Your task to perform on an android device: turn on javascript in the chrome app Image 0: 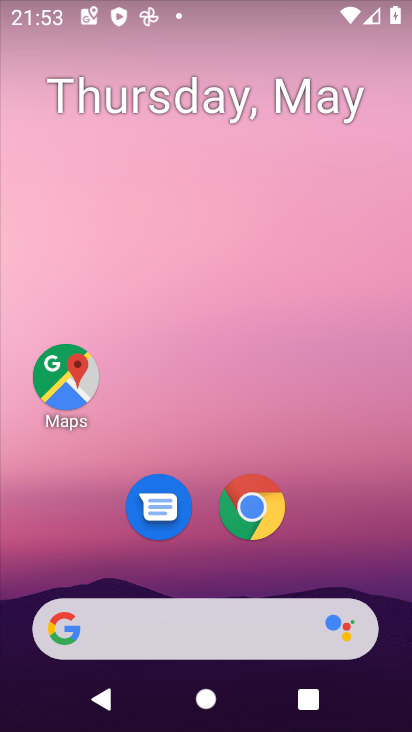
Step 0: drag from (209, 659) to (308, 254)
Your task to perform on an android device: turn on javascript in the chrome app Image 1: 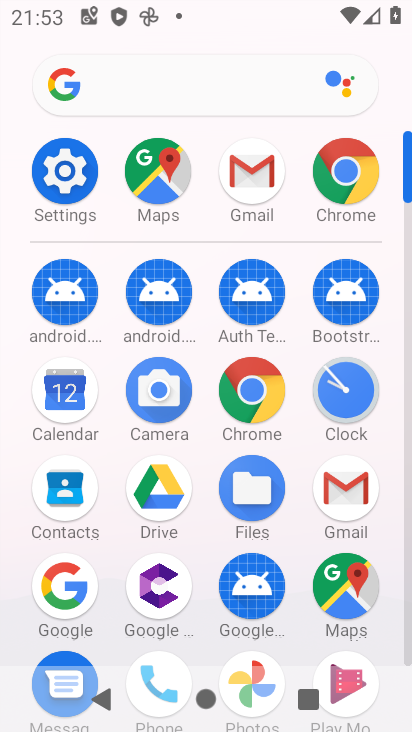
Step 1: click (324, 182)
Your task to perform on an android device: turn on javascript in the chrome app Image 2: 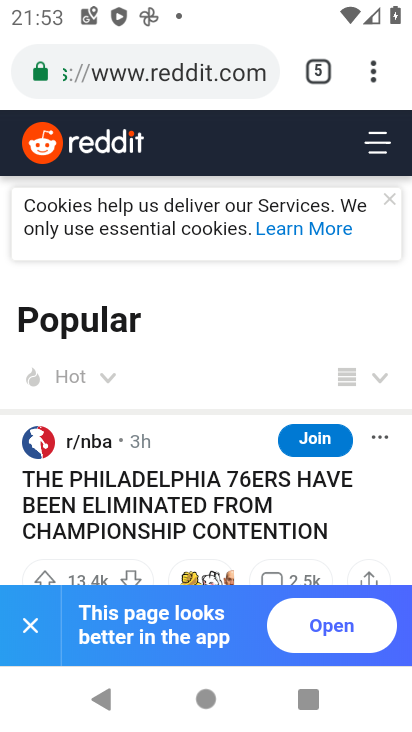
Step 2: click (369, 85)
Your task to perform on an android device: turn on javascript in the chrome app Image 3: 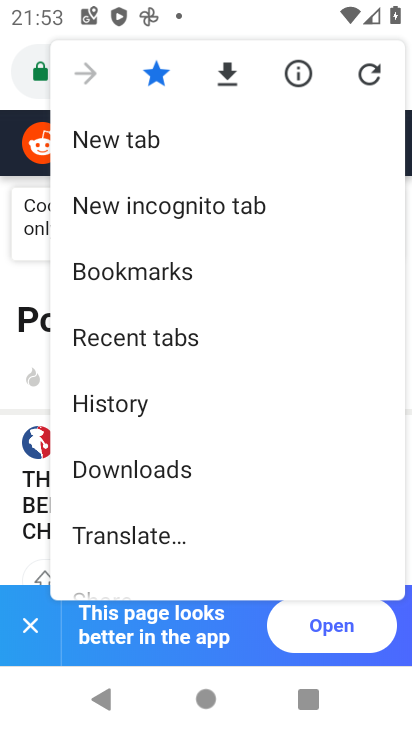
Step 3: drag from (180, 489) to (225, 282)
Your task to perform on an android device: turn on javascript in the chrome app Image 4: 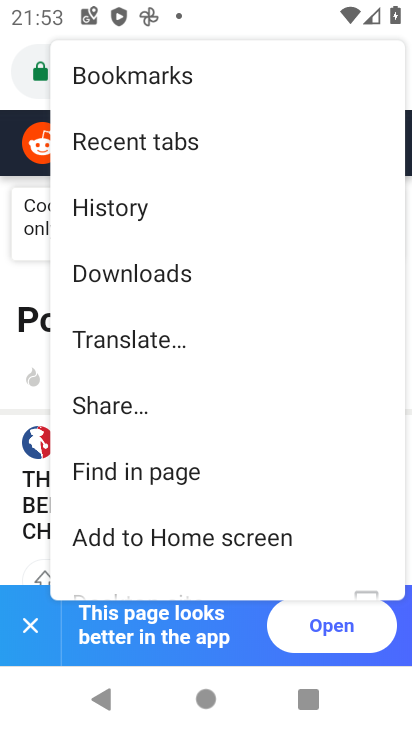
Step 4: drag from (139, 545) to (174, 474)
Your task to perform on an android device: turn on javascript in the chrome app Image 5: 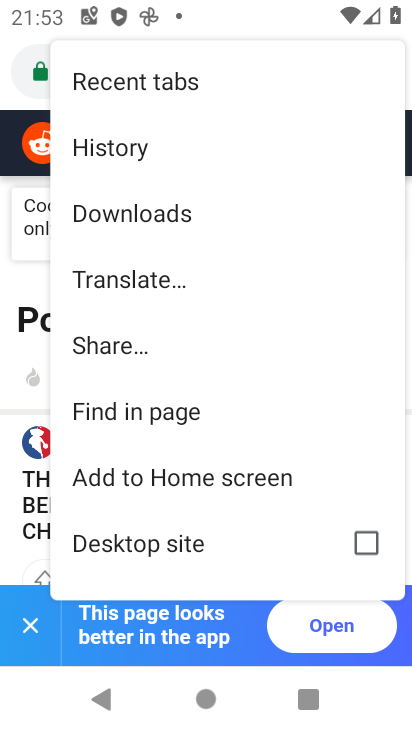
Step 5: drag from (130, 553) to (165, 461)
Your task to perform on an android device: turn on javascript in the chrome app Image 6: 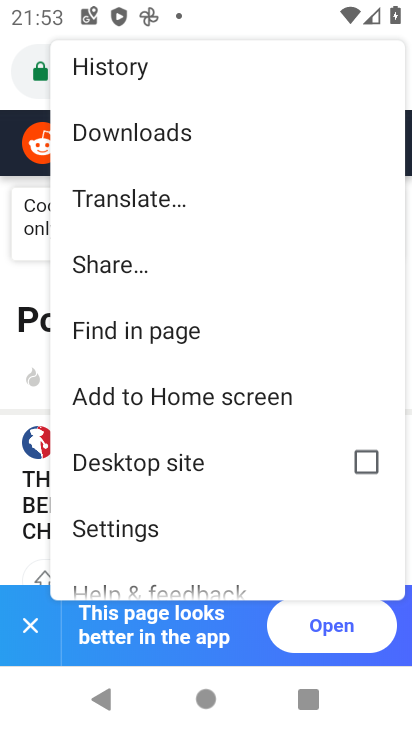
Step 6: click (116, 528)
Your task to perform on an android device: turn on javascript in the chrome app Image 7: 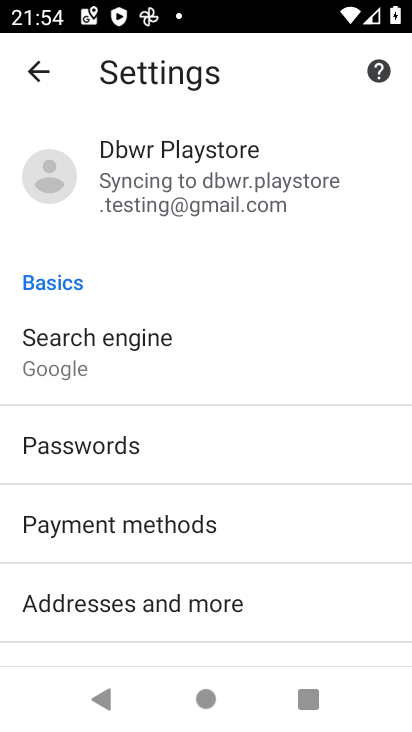
Step 7: drag from (123, 578) to (160, 339)
Your task to perform on an android device: turn on javascript in the chrome app Image 8: 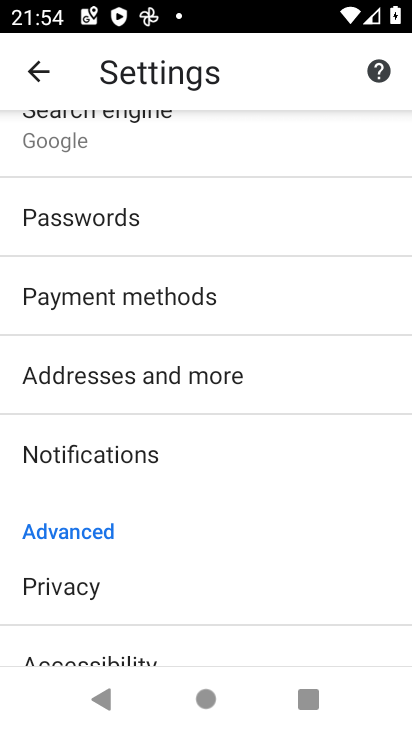
Step 8: drag from (108, 610) to (148, 454)
Your task to perform on an android device: turn on javascript in the chrome app Image 9: 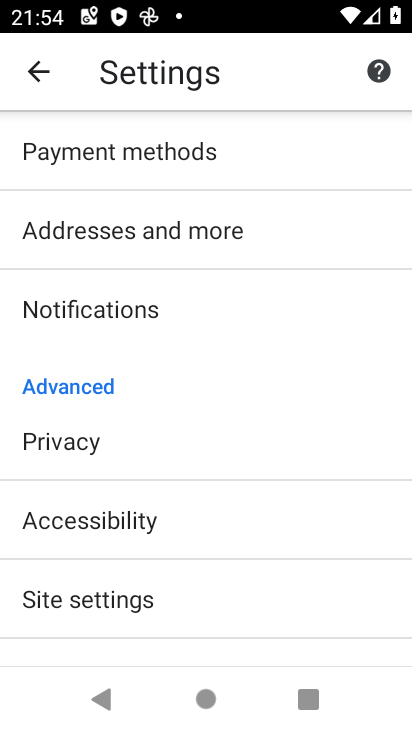
Step 9: click (112, 602)
Your task to perform on an android device: turn on javascript in the chrome app Image 10: 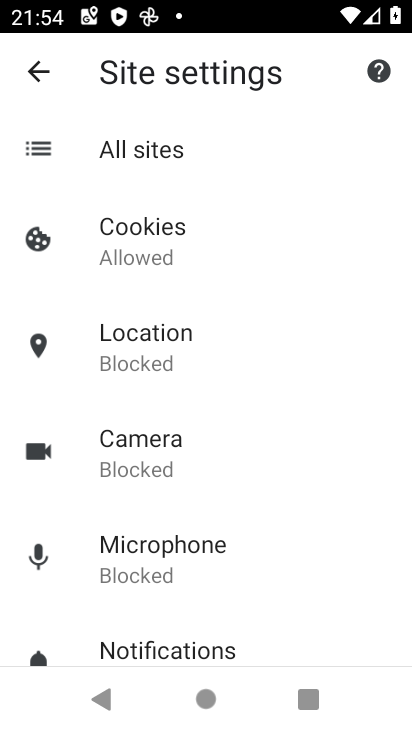
Step 10: drag from (212, 561) to (262, 350)
Your task to perform on an android device: turn on javascript in the chrome app Image 11: 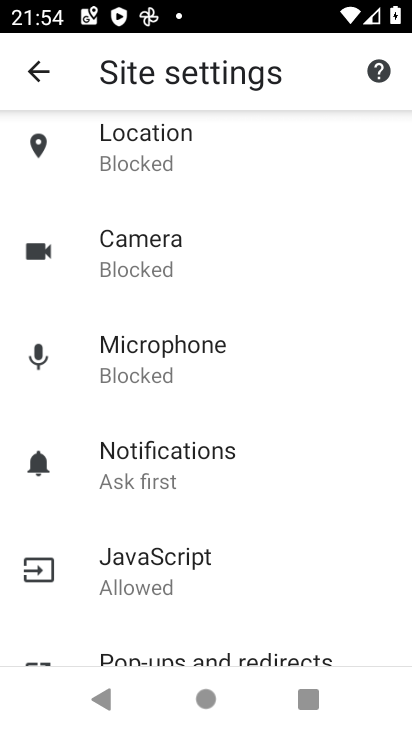
Step 11: click (180, 572)
Your task to perform on an android device: turn on javascript in the chrome app Image 12: 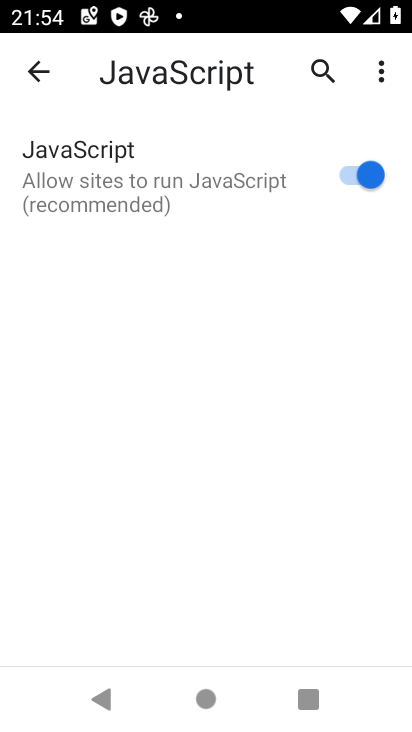
Step 12: click (365, 179)
Your task to perform on an android device: turn on javascript in the chrome app Image 13: 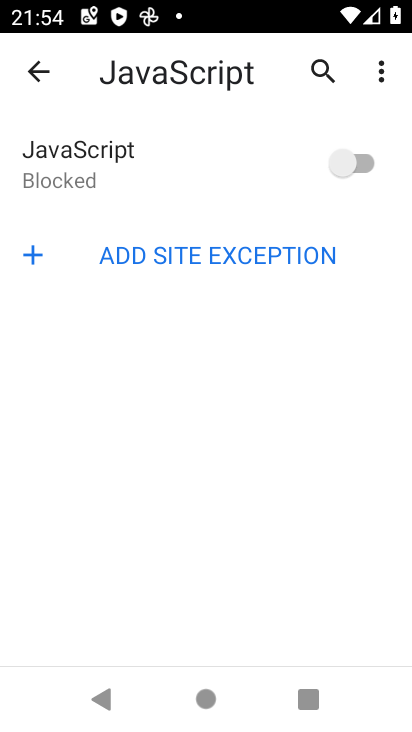
Step 13: click (344, 166)
Your task to perform on an android device: turn on javascript in the chrome app Image 14: 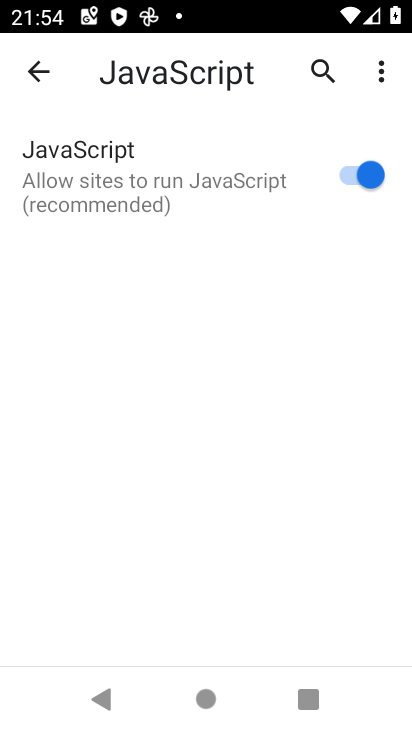
Step 14: task complete